Your task to perform on an android device: turn off location history Image 0: 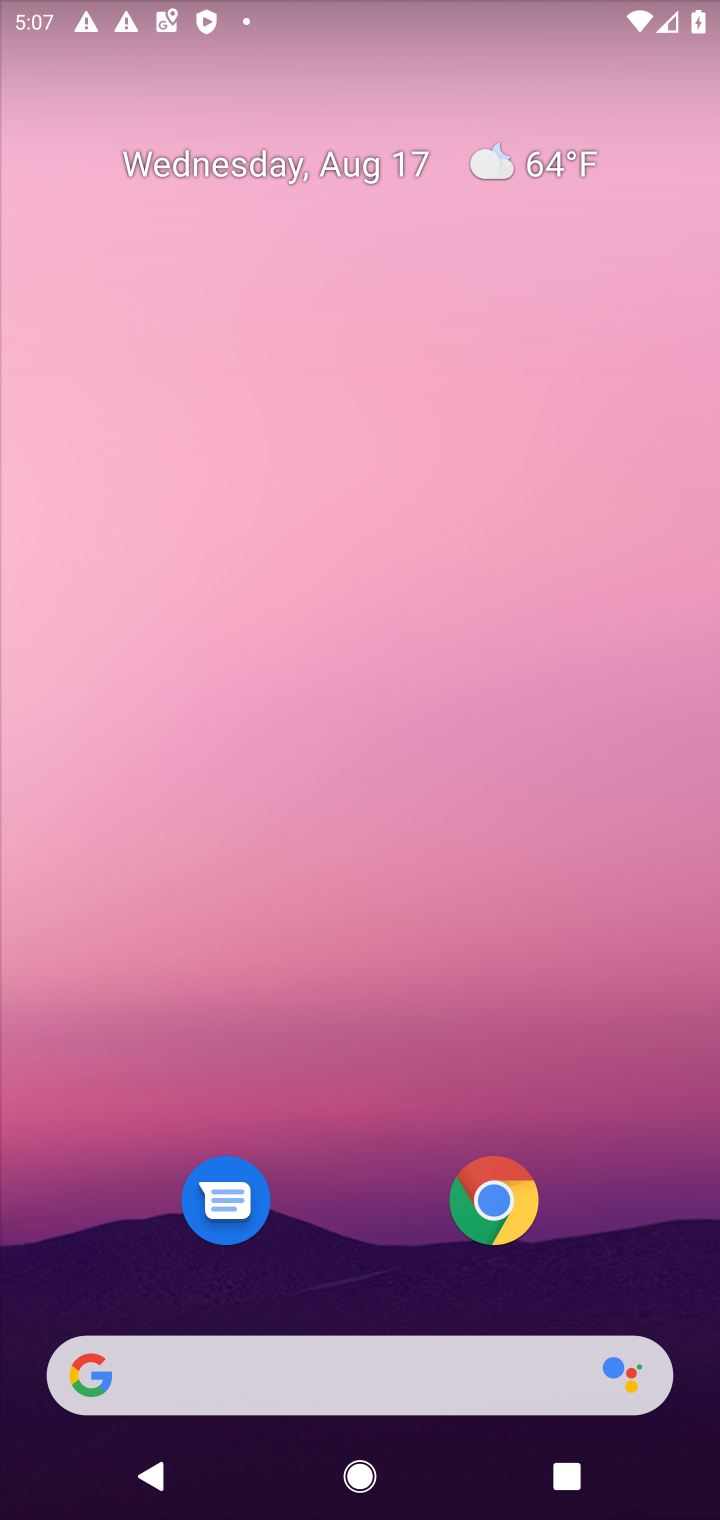
Step 0: drag from (353, 937) to (347, 22)
Your task to perform on an android device: turn off location history Image 1: 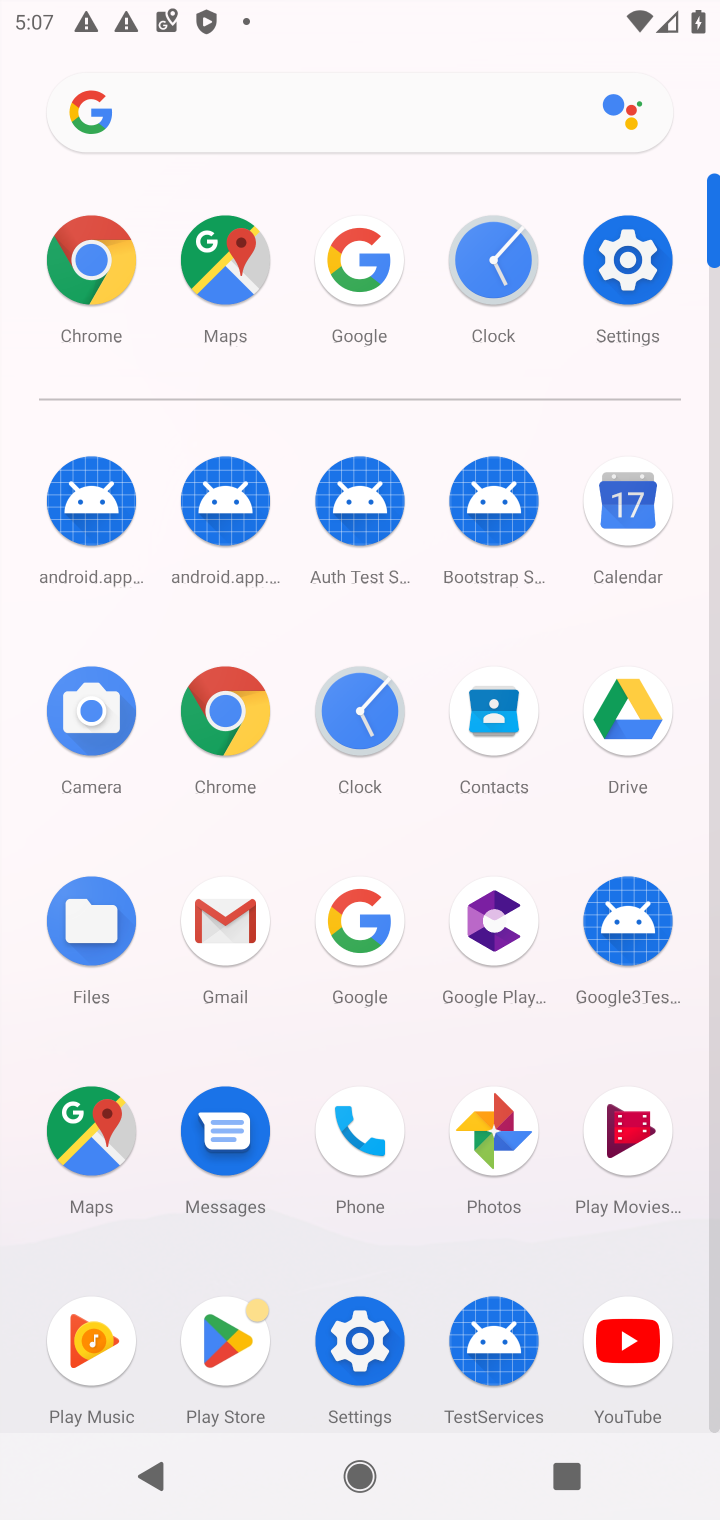
Step 1: click (617, 246)
Your task to perform on an android device: turn off location history Image 2: 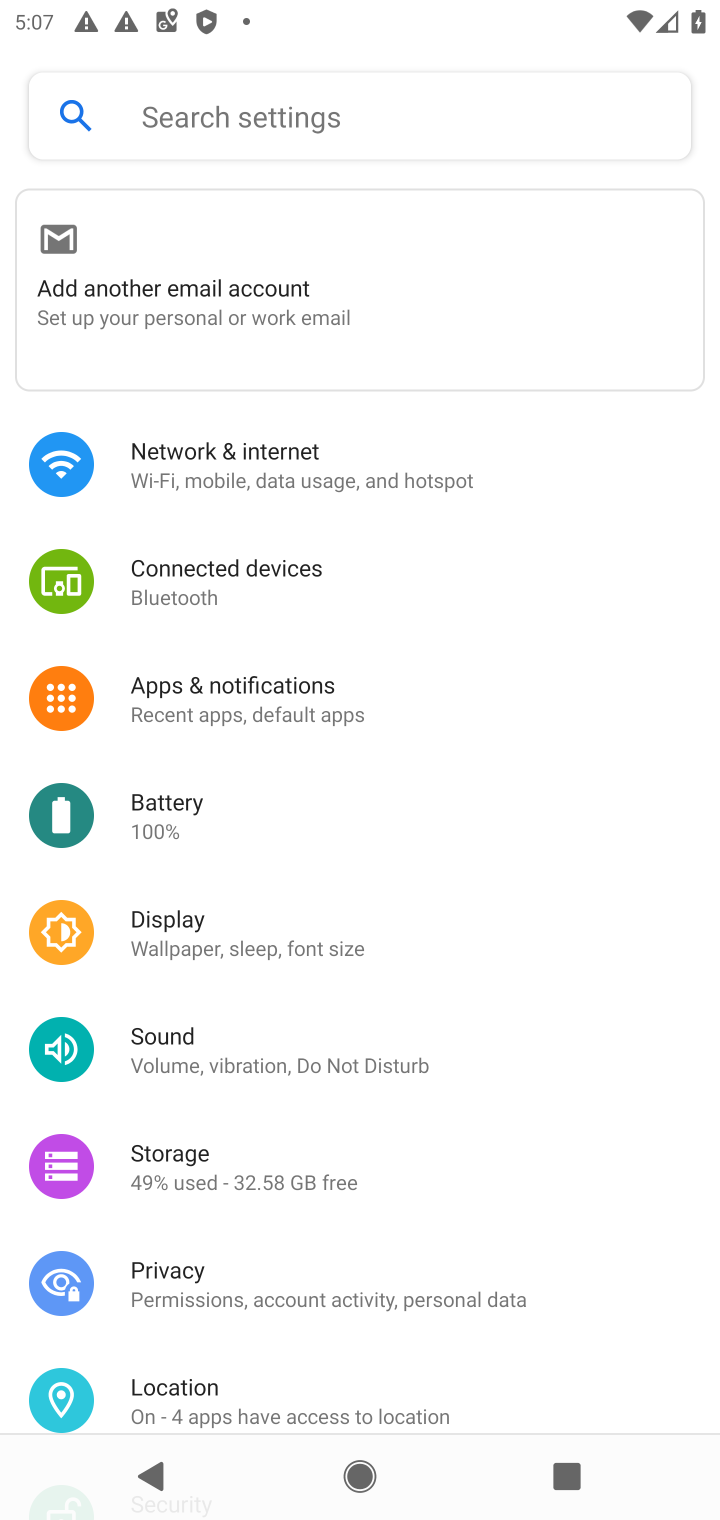
Step 2: click (194, 1391)
Your task to perform on an android device: turn off location history Image 3: 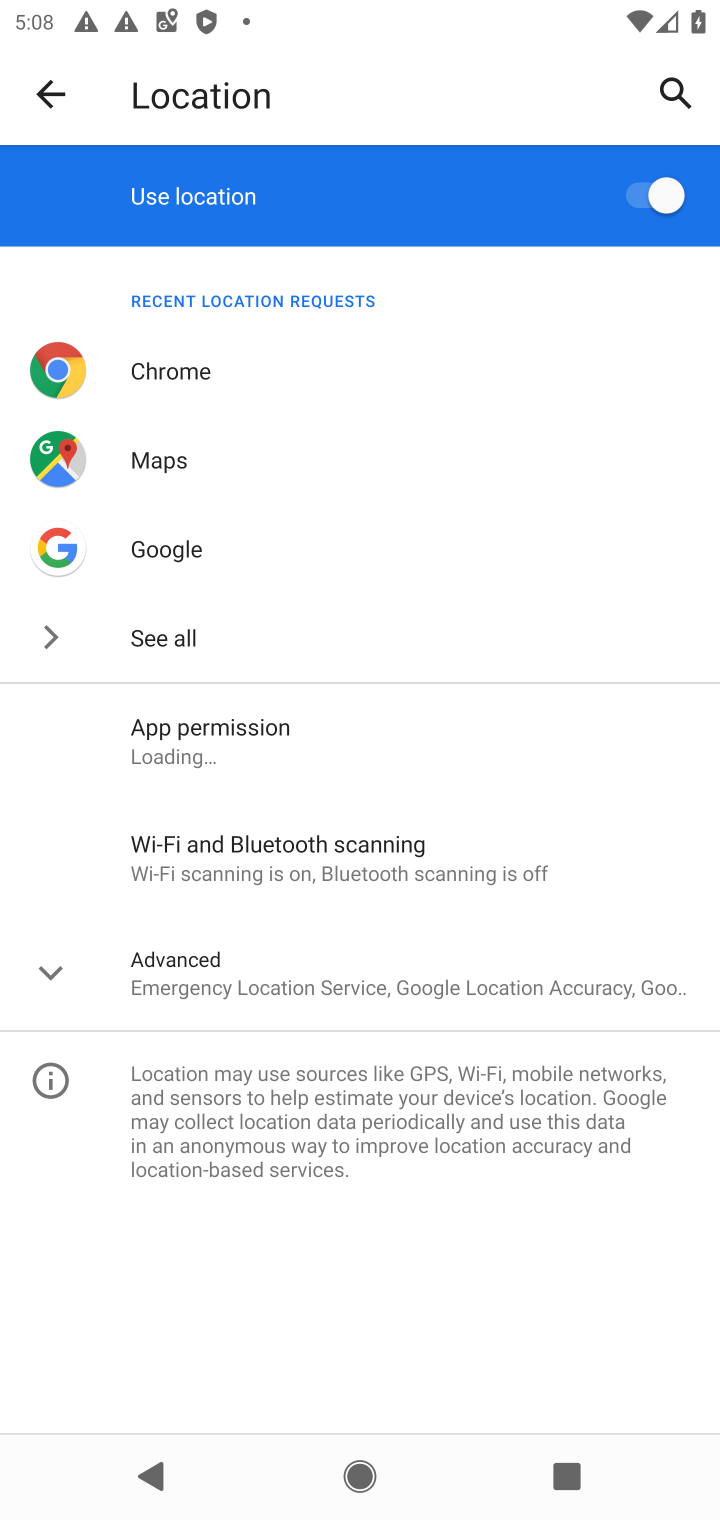
Step 3: click (244, 974)
Your task to perform on an android device: turn off location history Image 4: 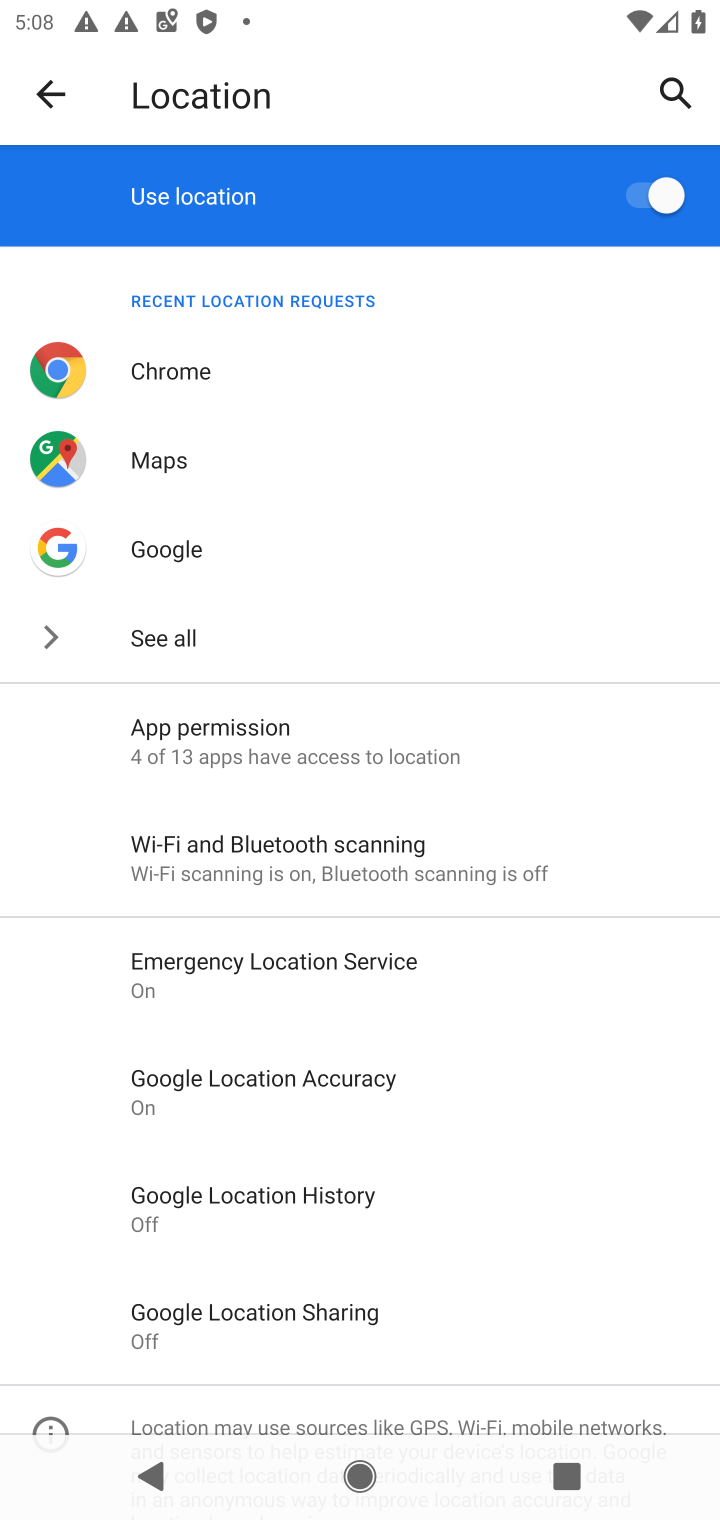
Step 4: click (311, 1195)
Your task to perform on an android device: turn off location history Image 5: 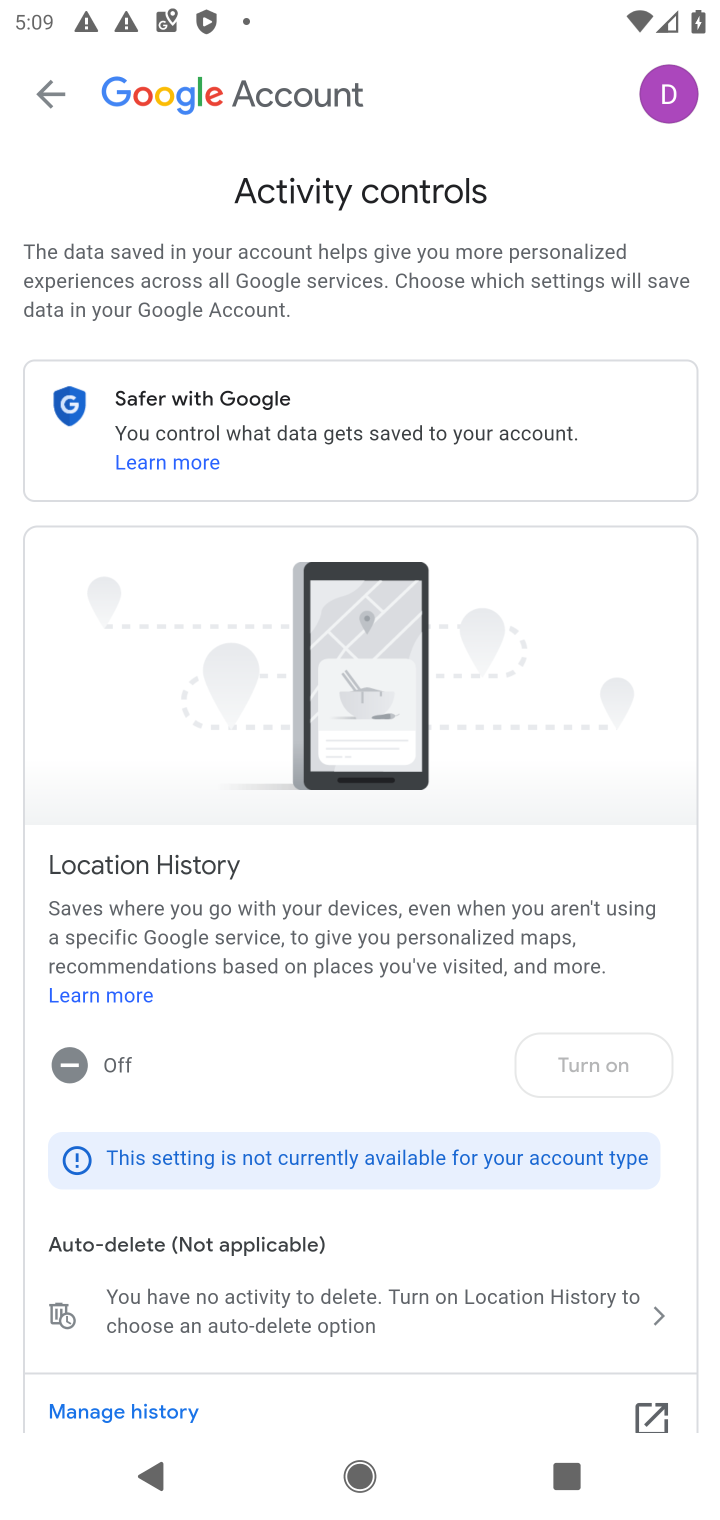
Step 5: task complete